Your task to perform on an android device: Open the Play Movies app and select the watchlist tab. Image 0: 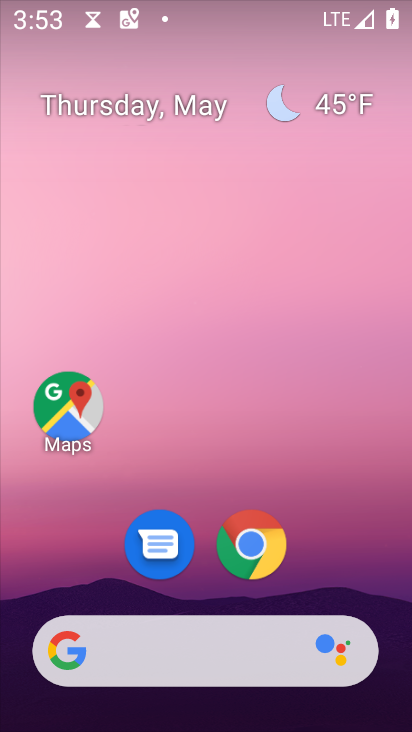
Step 0: drag from (346, 571) to (301, 67)
Your task to perform on an android device: Open the Play Movies app and select the watchlist tab. Image 1: 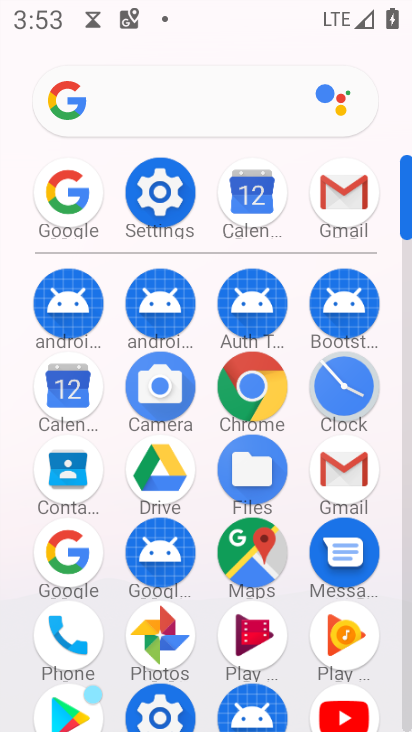
Step 1: drag from (296, 610) to (281, 233)
Your task to perform on an android device: Open the Play Movies app and select the watchlist tab. Image 2: 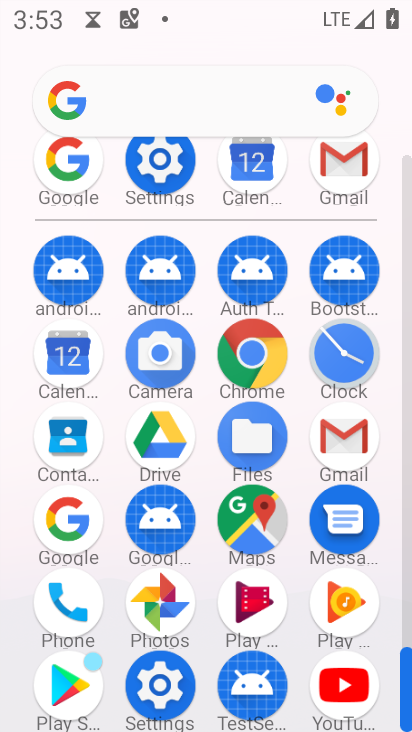
Step 2: click (255, 620)
Your task to perform on an android device: Open the Play Movies app and select the watchlist tab. Image 3: 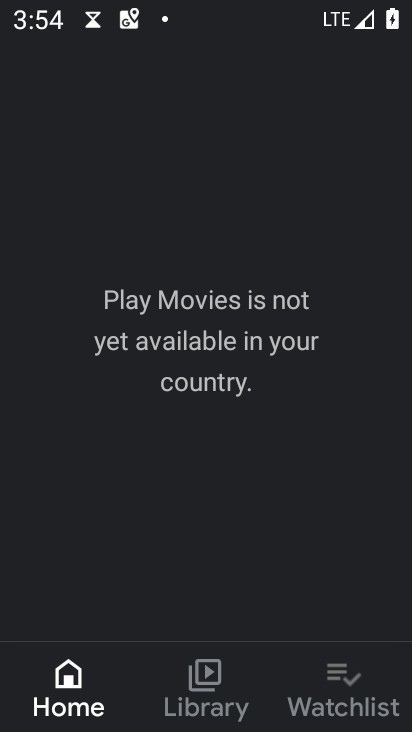
Step 3: click (325, 698)
Your task to perform on an android device: Open the Play Movies app and select the watchlist tab. Image 4: 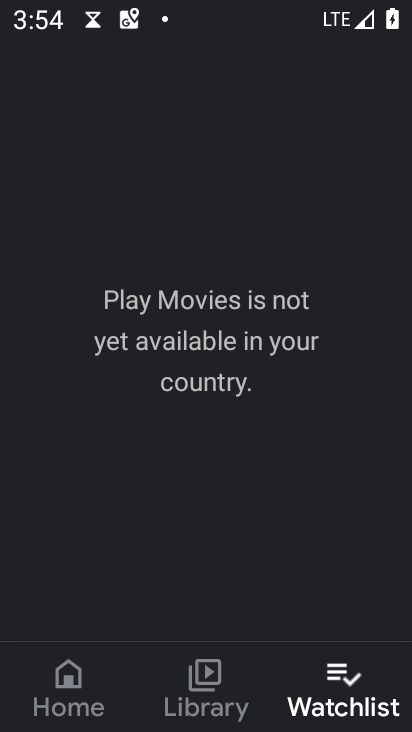
Step 4: task complete